Your task to perform on an android device: toggle translation in the chrome app Image 0: 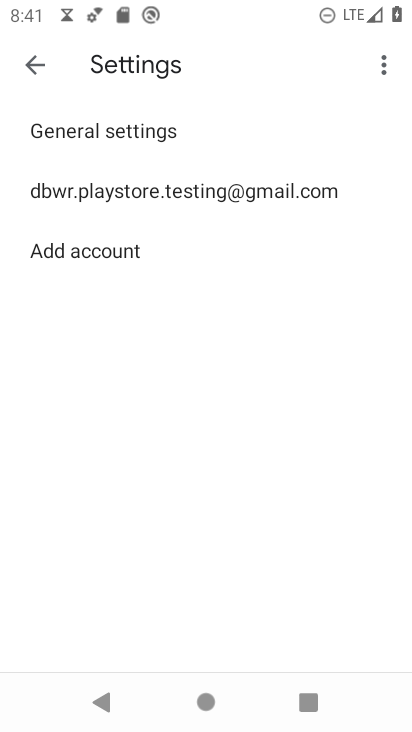
Step 0: press home button
Your task to perform on an android device: toggle translation in the chrome app Image 1: 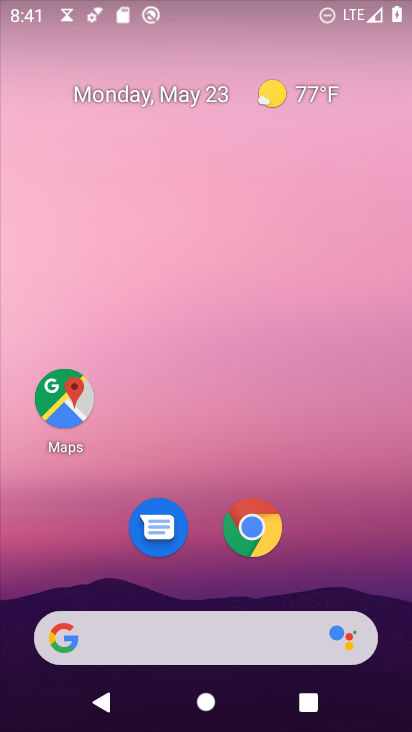
Step 1: drag from (263, 674) to (234, 57)
Your task to perform on an android device: toggle translation in the chrome app Image 2: 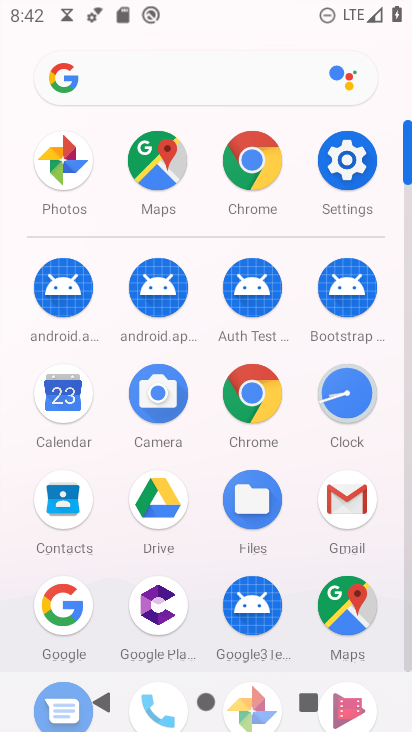
Step 2: click (253, 183)
Your task to perform on an android device: toggle translation in the chrome app Image 3: 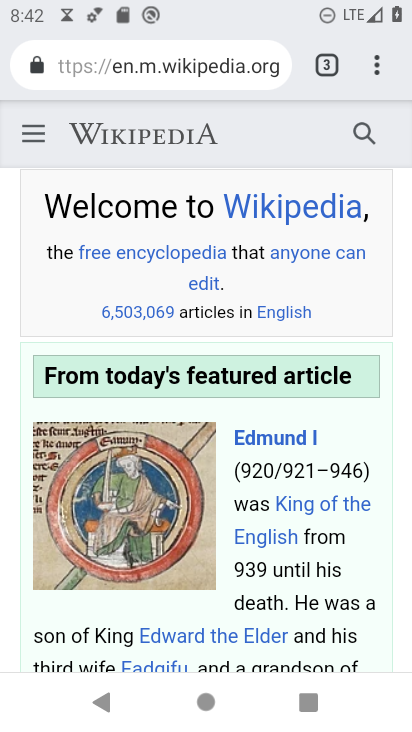
Step 3: click (373, 72)
Your task to perform on an android device: toggle translation in the chrome app Image 4: 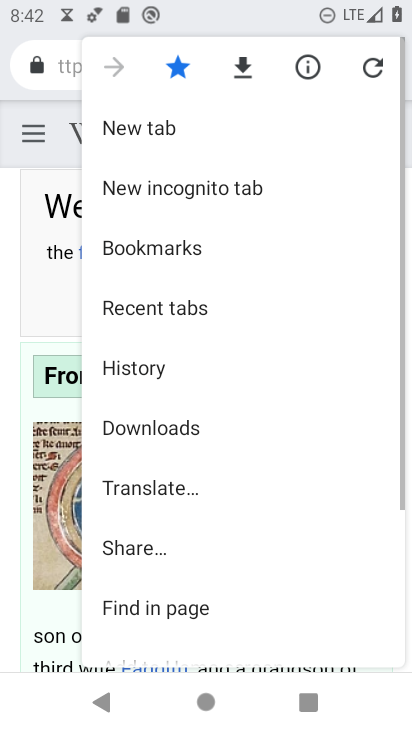
Step 4: drag from (161, 566) to (184, 265)
Your task to perform on an android device: toggle translation in the chrome app Image 5: 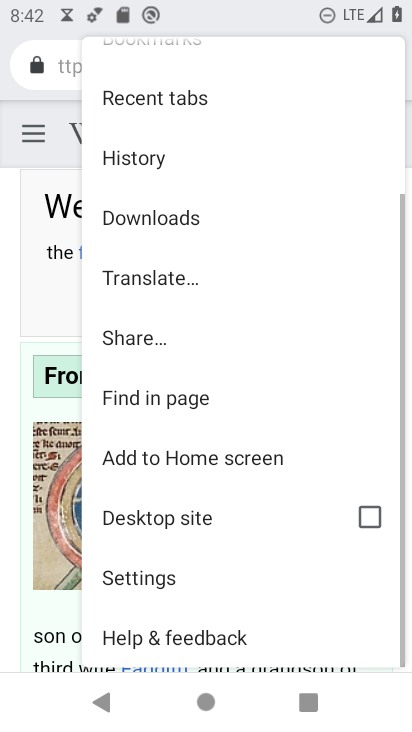
Step 5: click (182, 573)
Your task to perform on an android device: toggle translation in the chrome app Image 6: 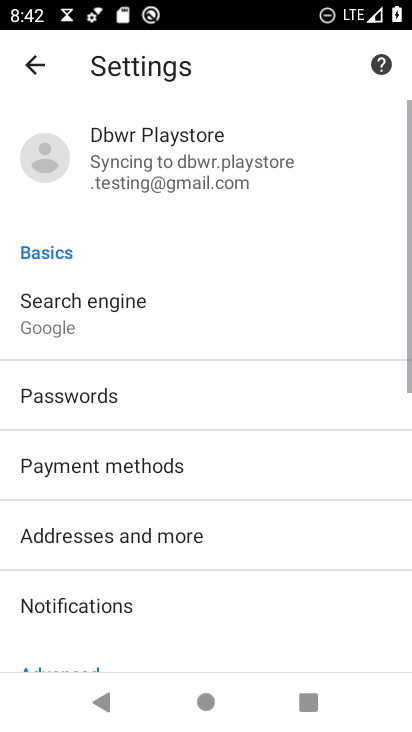
Step 6: drag from (175, 569) to (215, 295)
Your task to perform on an android device: toggle translation in the chrome app Image 7: 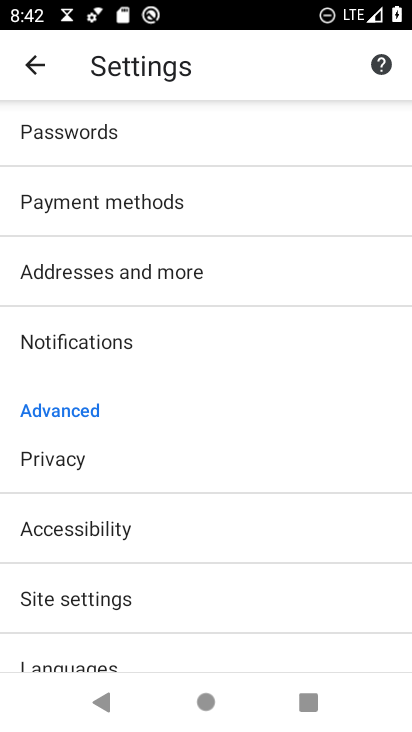
Step 7: drag from (136, 580) to (162, 387)
Your task to perform on an android device: toggle translation in the chrome app Image 8: 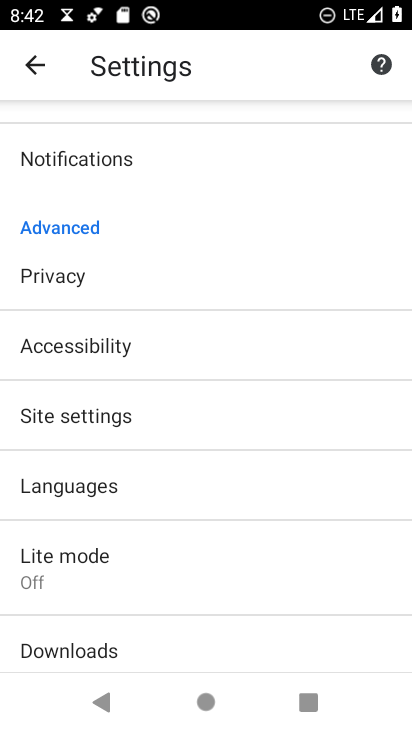
Step 8: click (108, 476)
Your task to perform on an android device: toggle translation in the chrome app Image 9: 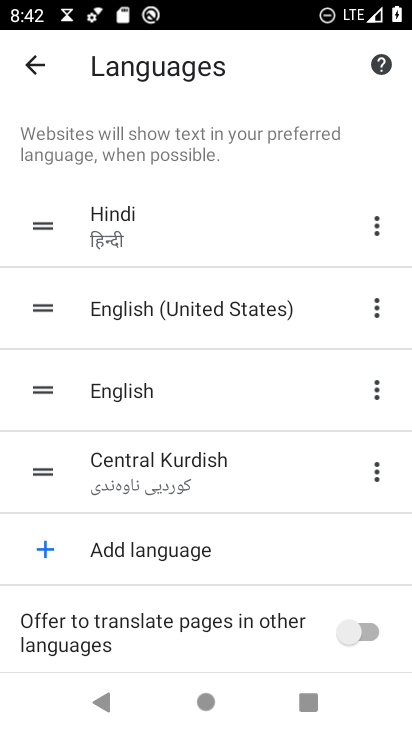
Step 9: task complete